Your task to perform on an android device: open app "ColorNote Notepad Notes" (install if not already installed) and enter user name: "unbridled@gmail.com" and password: "regularly" Image 0: 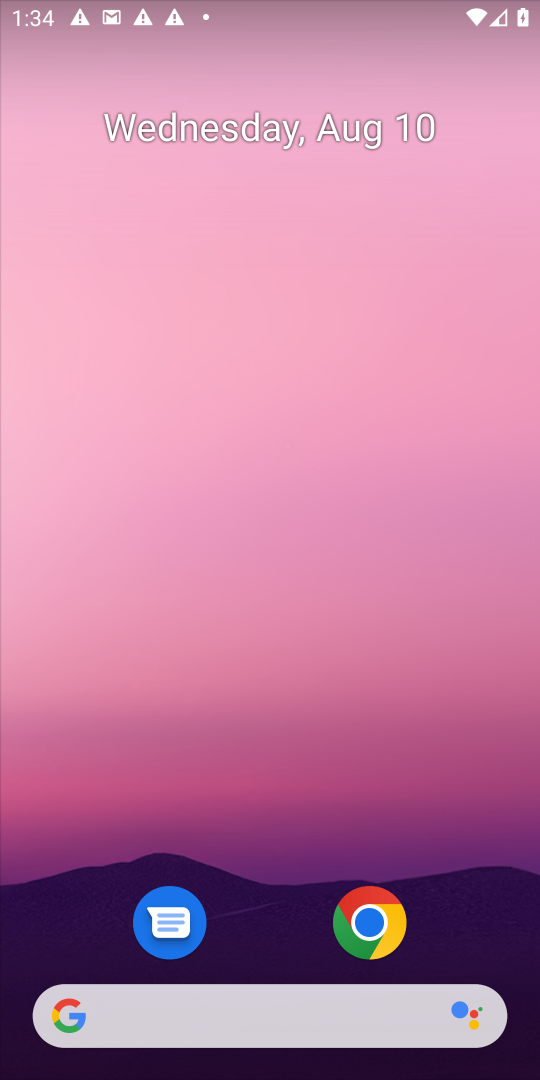
Step 0: drag from (255, 857) to (246, 184)
Your task to perform on an android device: open app "ColorNote Notepad Notes" (install if not already installed) and enter user name: "unbridled@gmail.com" and password: "regularly" Image 1: 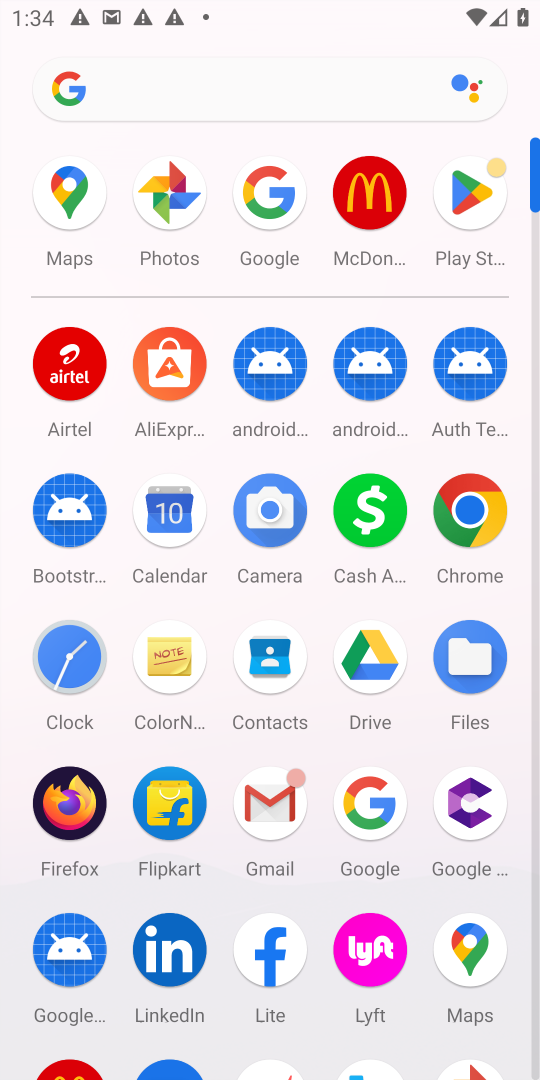
Step 1: click (458, 212)
Your task to perform on an android device: open app "ColorNote Notepad Notes" (install if not already installed) and enter user name: "unbridled@gmail.com" and password: "regularly" Image 2: 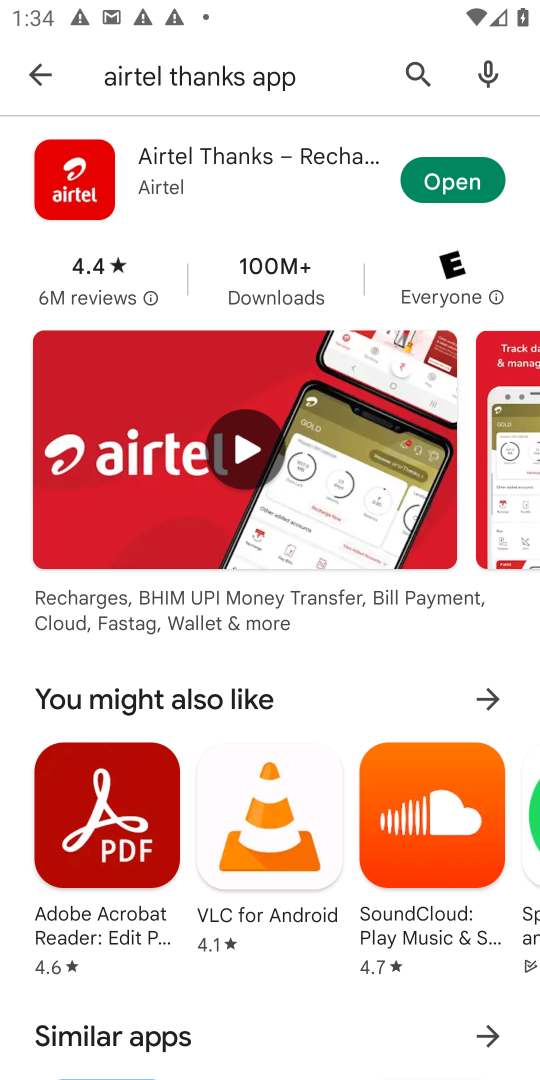
Step 2: click (42, 78)
Your task to perform on an android device: open app "ColorNote Notepad Notes" (install if not already installed) and enter user name: "unbridled@gmail.com" and password: "regularly" Image 3: 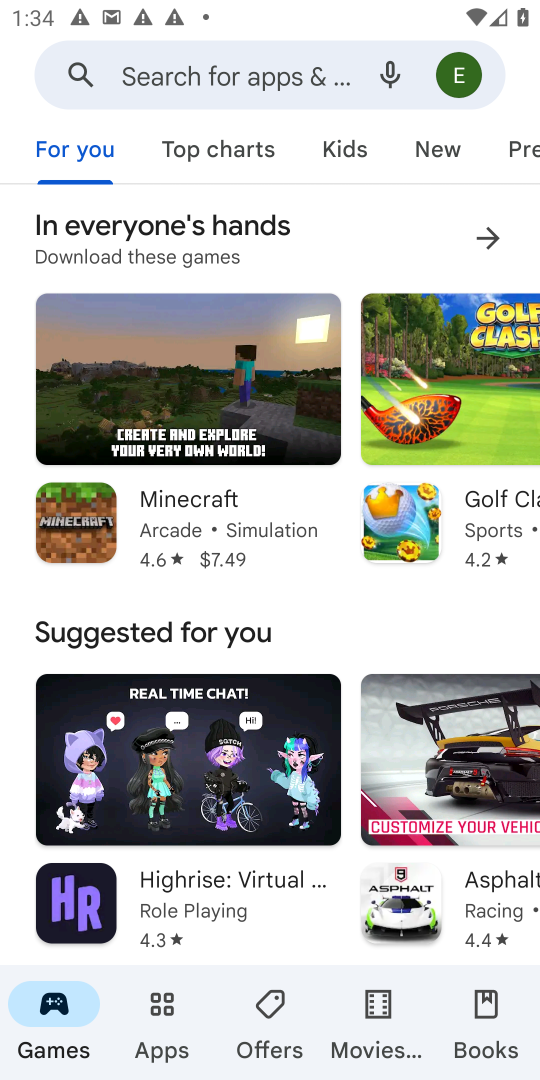
Step 3: click (235, 70)
Your task to perform on an android device: open app "ColorNote Notepad Notes" (install if not already installed) and enter user name: "unbridled@gmail.com" and password: "regularly" Image 4: 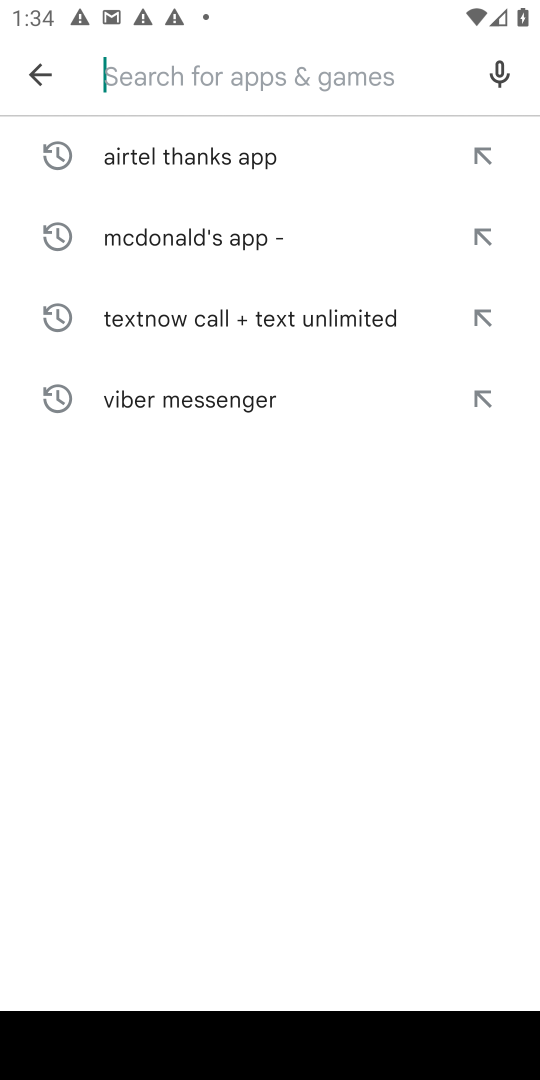
Step 4: type "ColorNote Notepad Notes"
Your task to perform on an android device: open app "ColorNote Notepad Notes" (install if not already installed) and enter user name: "unbridled@gmail.com" and password: "regularly" Image 5: 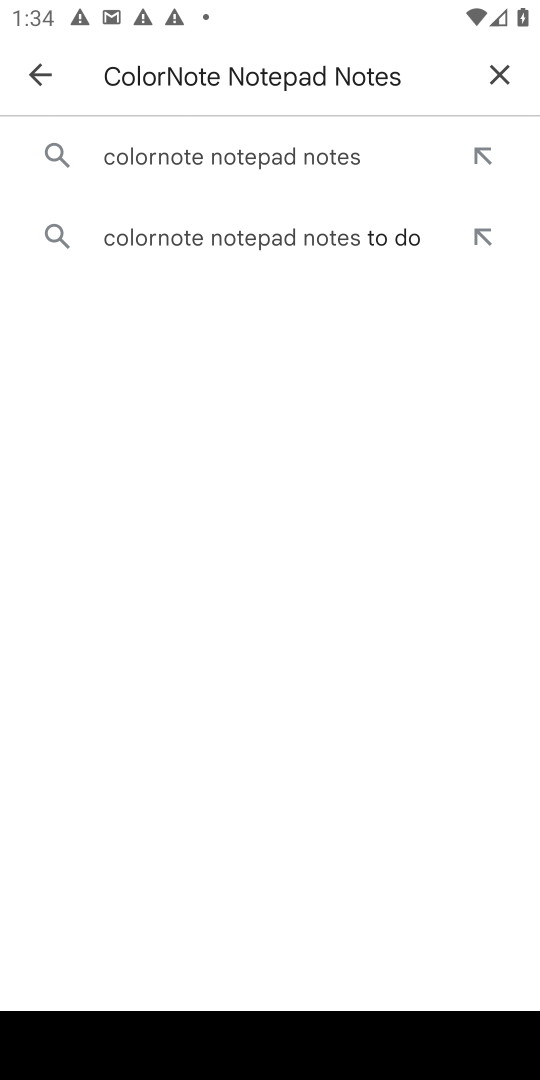
Step 5: click (177, 165)
Your task to perform on an android device: open app "ColorNote Notepad Notes" (install if not already installed) and enter user name: "unbridled@gmail.com" and password: "regularly" Image 6: 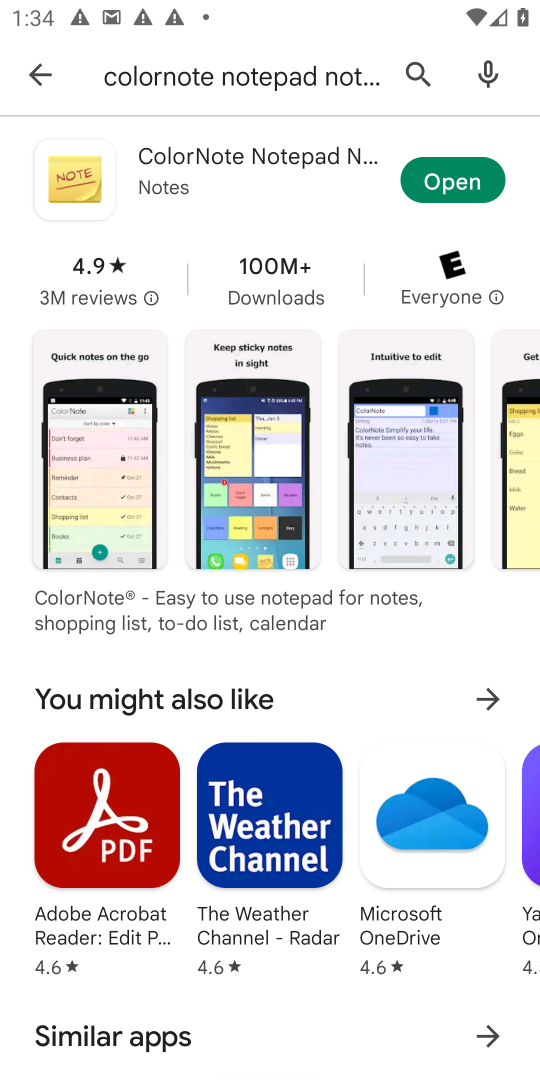
Step 6: click (465, 197)
Your task to perform on an android device: open app "ColorNote Notepad Notes" (install if not already installed) and enter user name: "unbridled@gmail.com" and password: "regularly" Image 7: 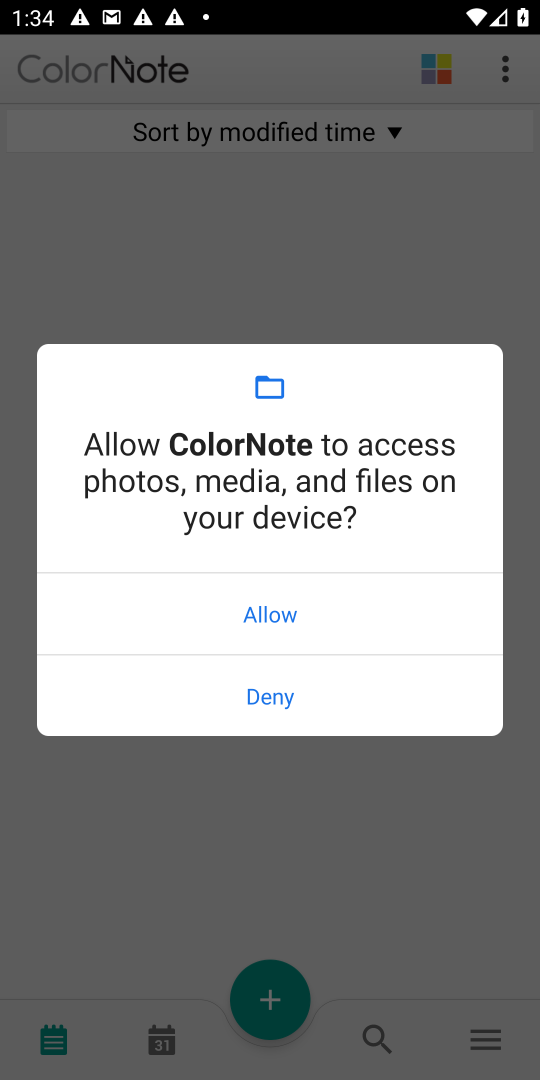
Step 7: click (279, 600)
Your task to perform on an android device: open app "ColorNote Notepad Notes" (install if not already installed) and enter user name: "unbridled@gmail.com" and password: "regularly" Image 8: 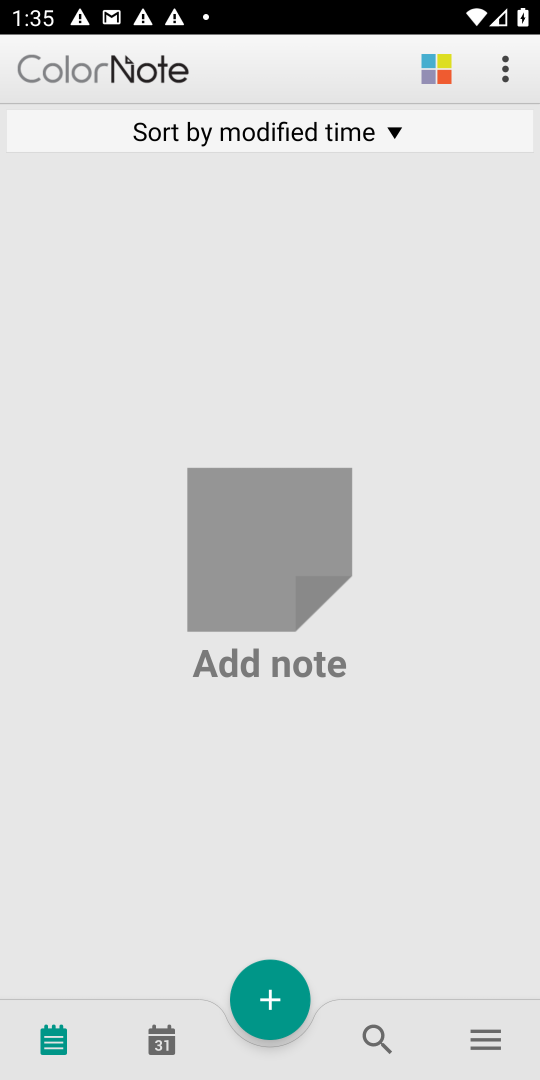
Step 8: click (473, 1053)
Your task to perform on an android device: open app "ColorNote Notepad Notes" (install if not already installed) and enter user name: "unbridled@gmail.com" and password: "regularly" Image 9: 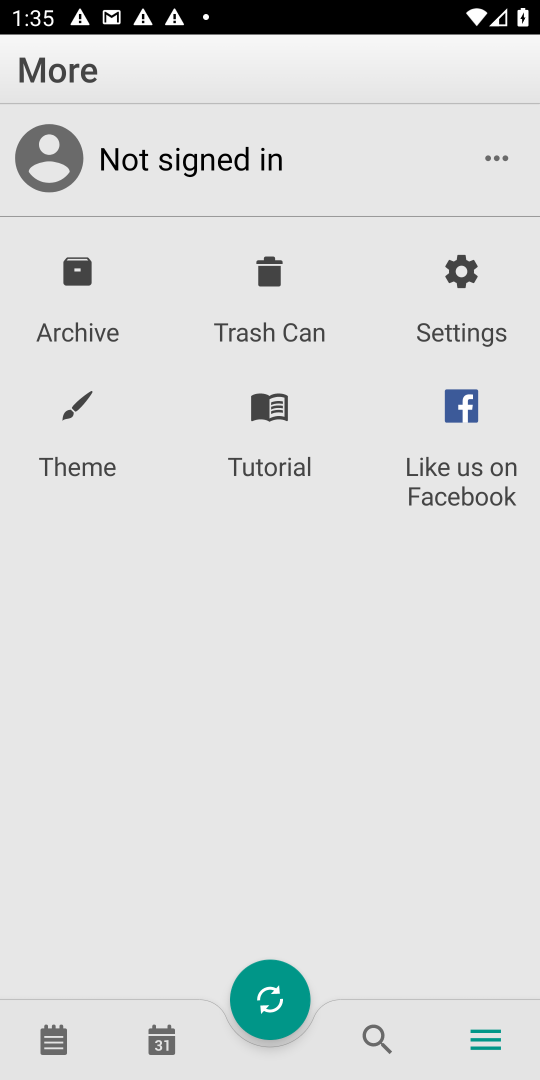
Step 9: click (210, 153)
Your task to perform on an android device: open app "ColorNote Notepad Notes" (install if not already installed) and enter user name: "unbridled@gmail.com" and password: "regularly" Image 10: 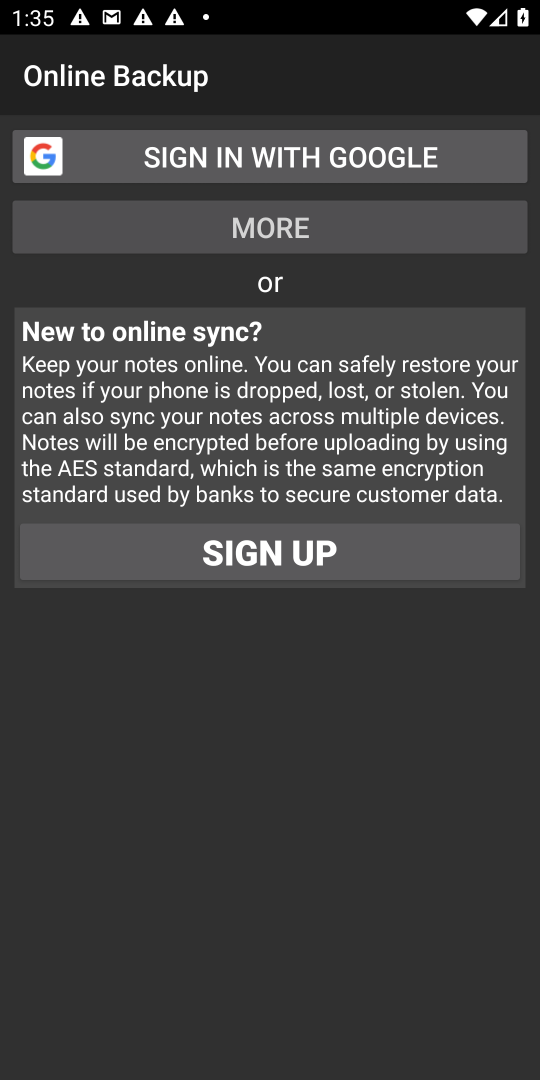
Step 10: click (246, 225)
Your task to perform on an android device: open app "ColorNote Notepad Notes" (install if not already installed) and enter user name: "unbridled@gmail.com" and password: "regularly" Image 11: 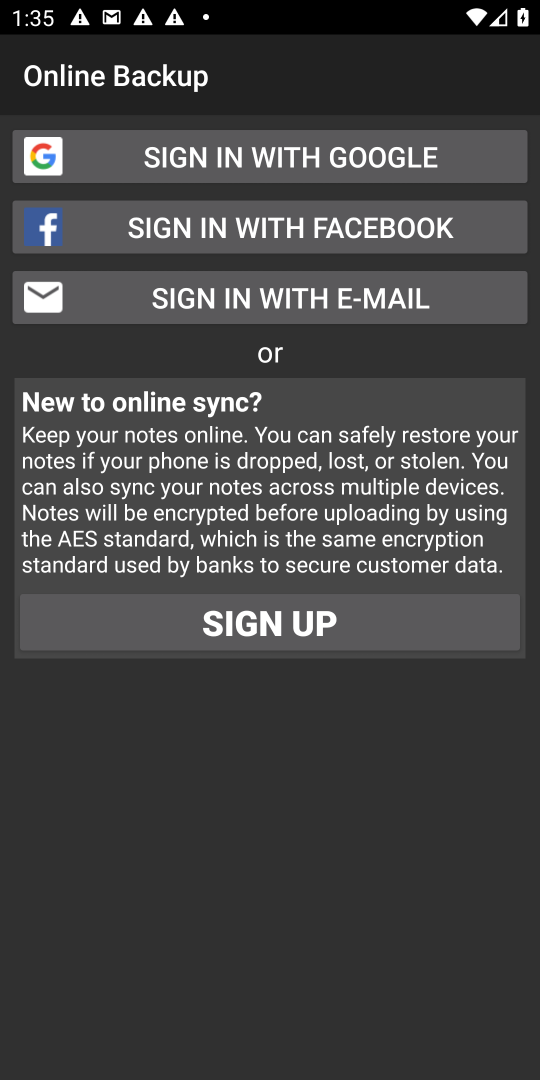
Step 11: click (246, 306)
Your task to perform on an android device: open app "ColorNote Notepad Notes" (install if not already installed) and enter user name: "unbridled@gmail.com" and password: "regularly" Image 12: 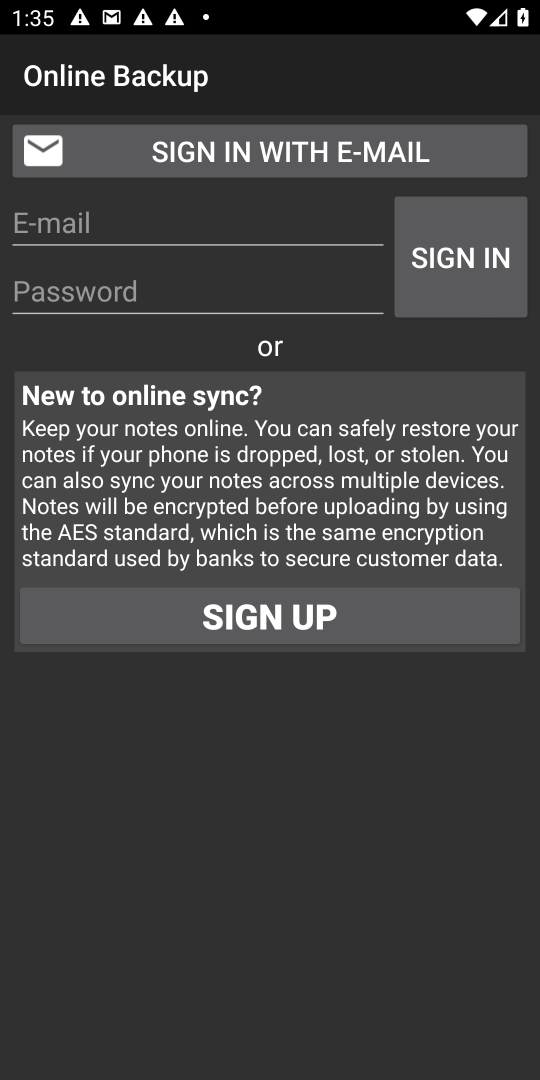
Step 12: click (82, 214)
Your task to perform on an android device: open app "ColorNote Notepad Notes" (install if not already installed) and enter user name: "unbridled@gmail.com" and password: "regularly" Image 13: 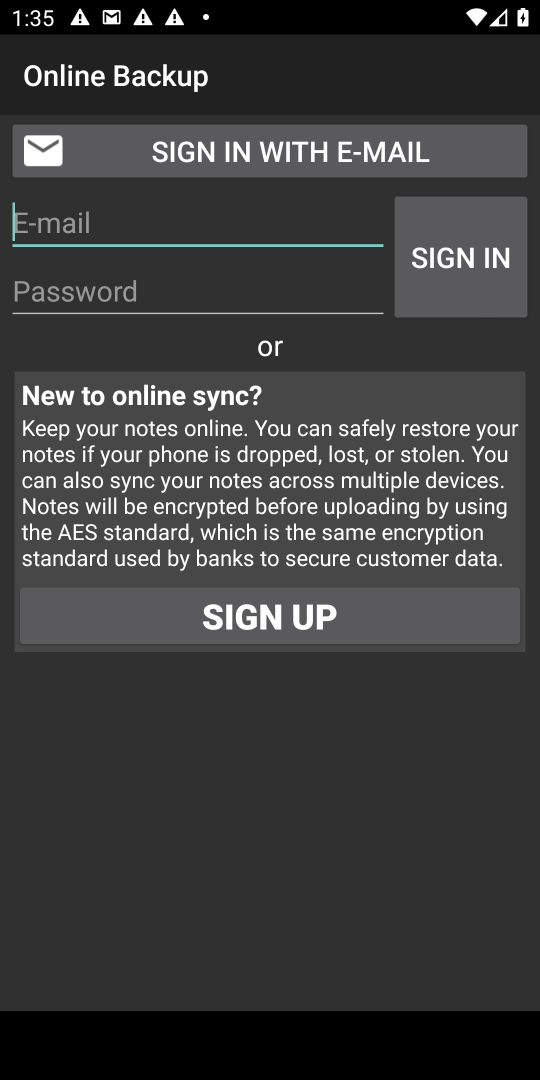
Step 13: type "unbridled@gmail.com"
Your task to perform on an android device: open app "ColorNote Notepad Notes" (install if not already installed) and enter user name: "unbridled@gmail.com" and password: "regularly" Image 14: 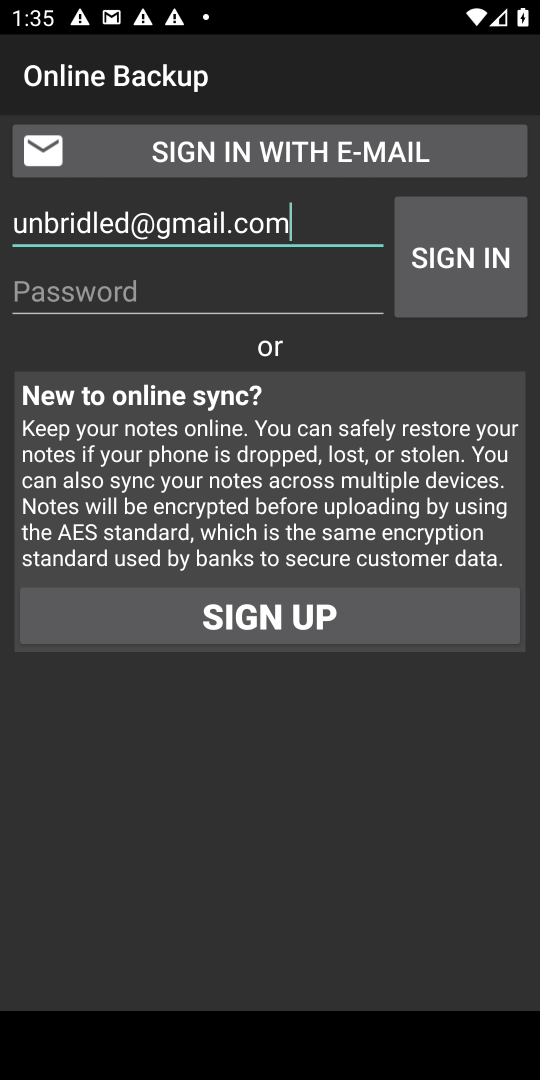
Step 14: click (125, 286)
Your task to perform on an android device: open app "ColorNote Notepad Notes" (install if not already installed) and enter user name: "unbridled@gmail.com" and password: "regularly" Image 15: 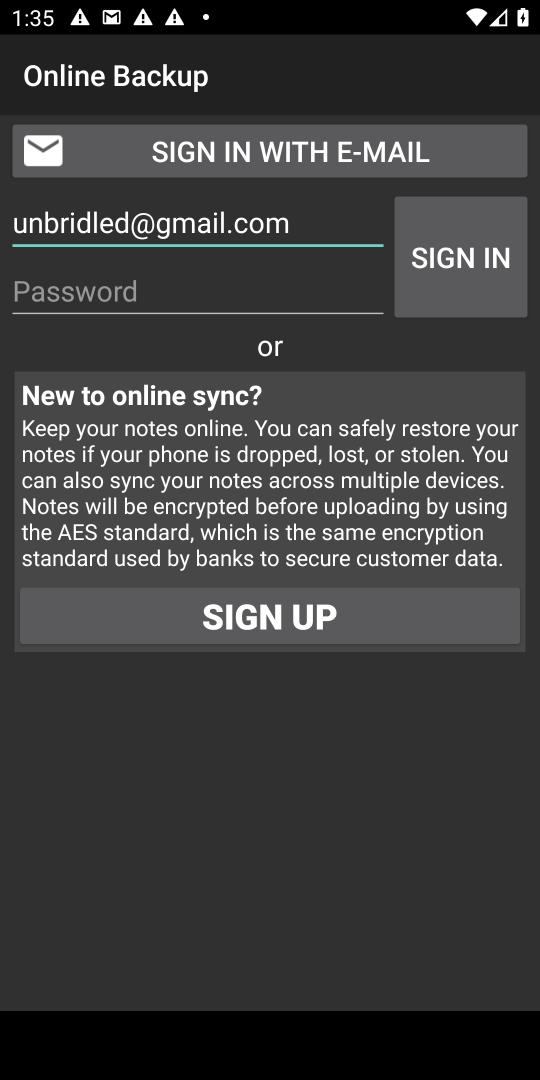
Step 15: click (125, 286)
Your task to perform on an android device: open app "ColorNote Notepad Notes" (install if not already installed) and enter user name: "unbridled@gmail.com" and password: "regularly" Image 16: 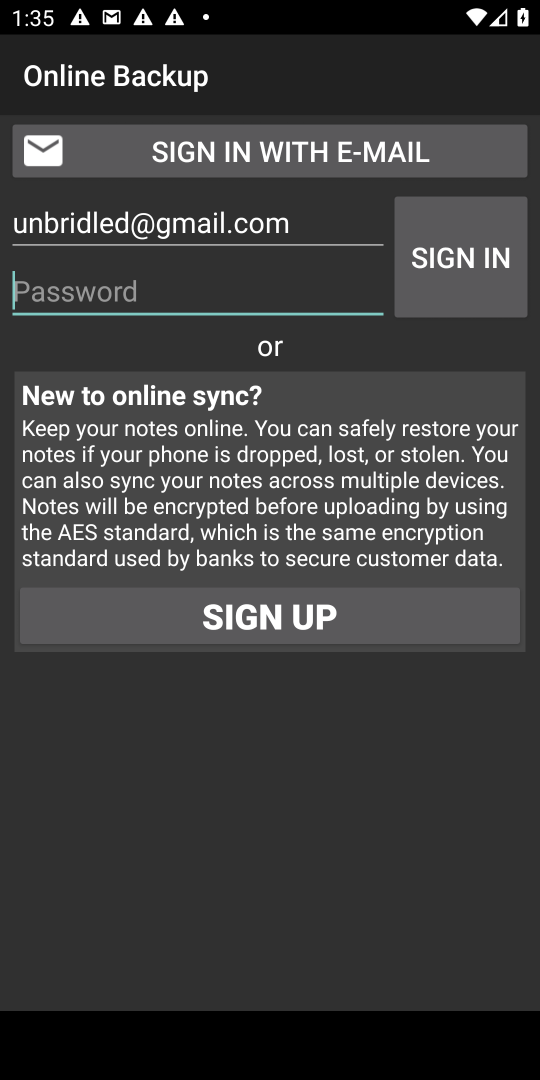
Step 16: type "regularly"
Your task to perform on an android device: open app "ColorNote Notepad Notes" (install if not already installed) and enter user name: "unbridled@gmail.com" and password: "regularly" Image 17: 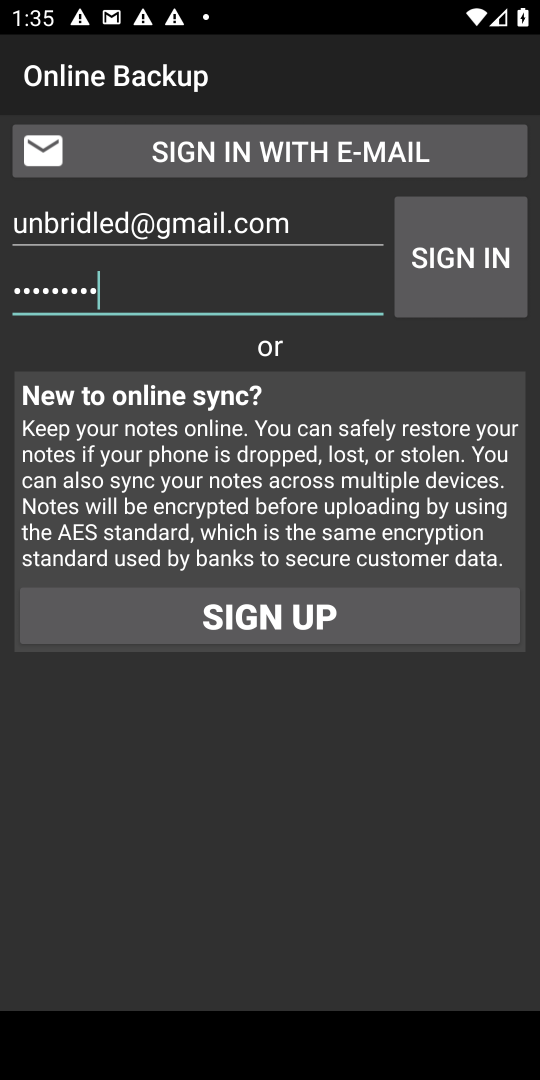
Step 17: click (433, 246)
Your task to perform on an android device: open app "ColorNote Notepad Notes" (install if not already installed) and enter user name: "unbridled@gmail.com" and password: "regularly" Image 18: 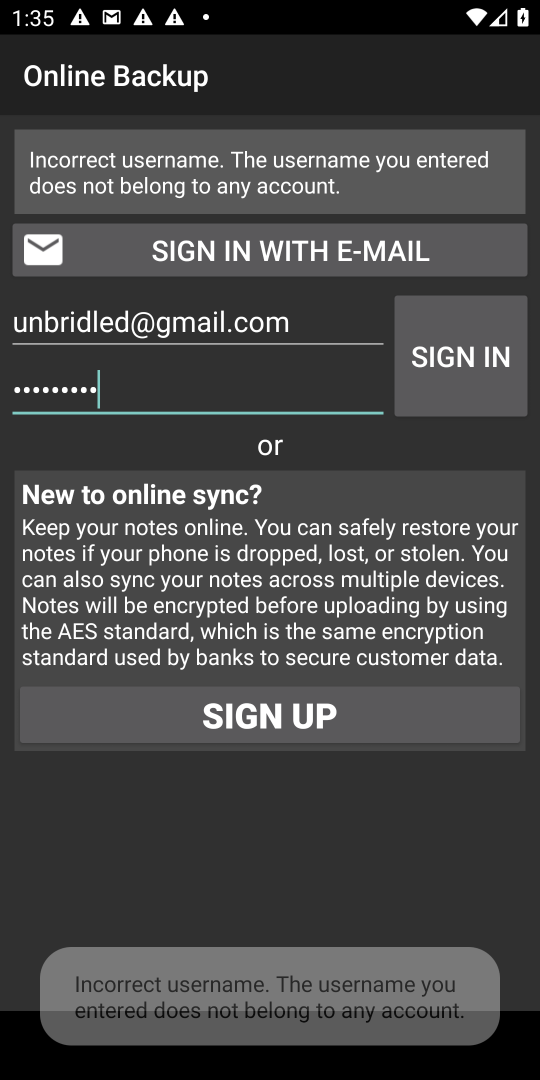
Step 18: task complete